Your task to perform on an android device: Go to privacy settings Image 0: 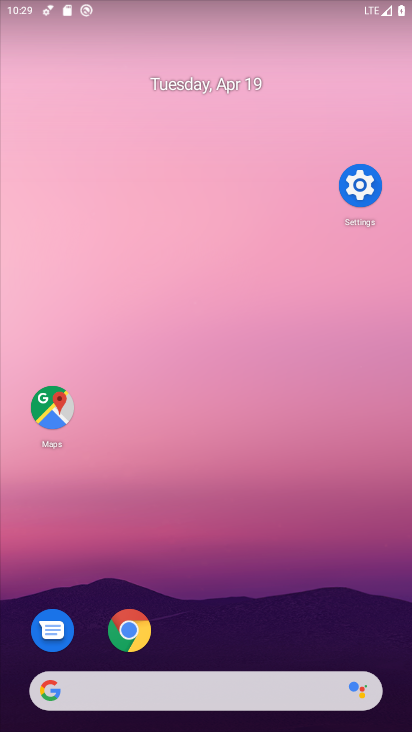
Step 0: drag from (269, 608) to (312, 131)
Your task to perform on an android device: Go to privacy settings Image 1: 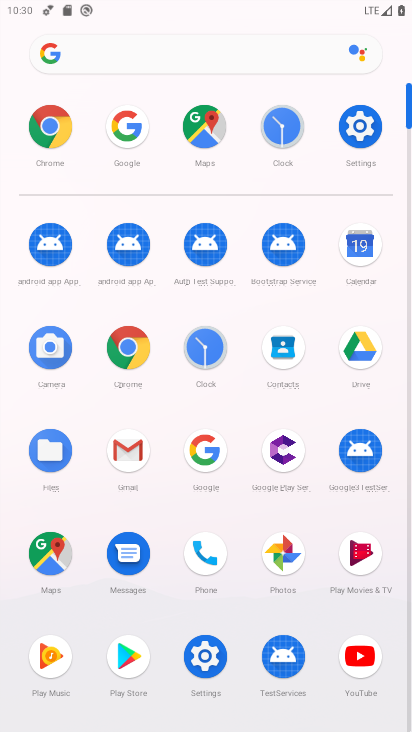
Step 1: click (367, 134)
Your task to perform on an android device: Go to privacy settings Image 2: 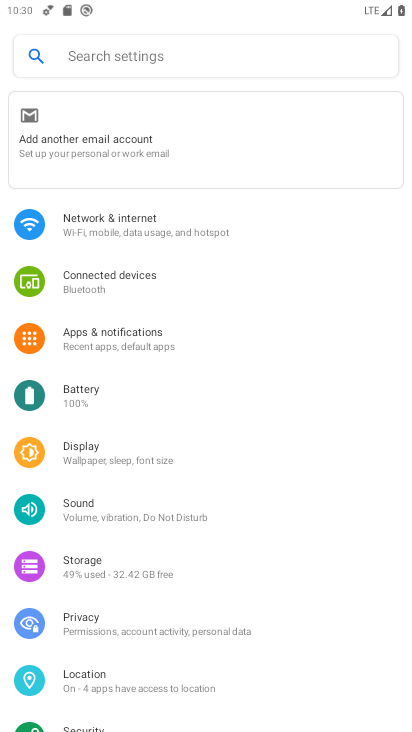
Step 2: drag from (141, 572) to (196, 222)
Your task to perform on an android device: Go to privacy settings Image 3: 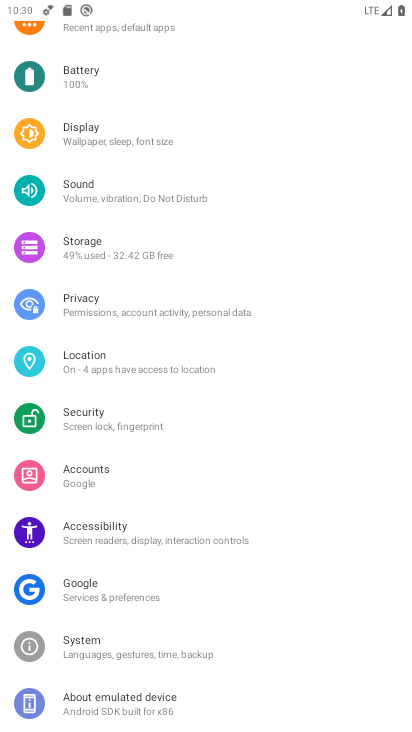
Step 3: click (234, 316)
Your task to perform on an android device: Go to privacy settings Image 4: 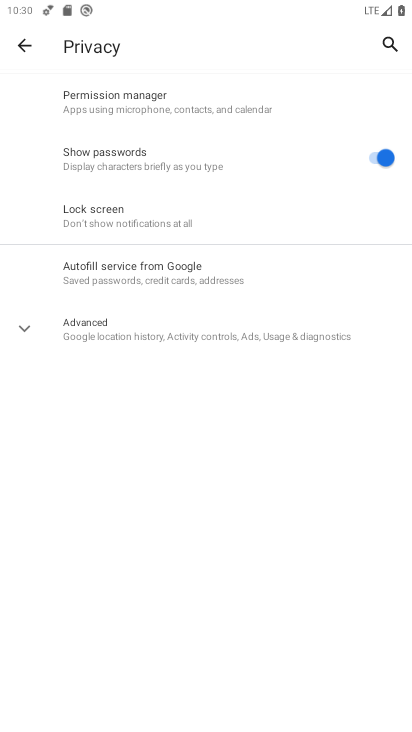
Step 4: task complete